Your task to perform on an android device: open app "Roku - Official Remote Control" (install if not already installed) Image 0: 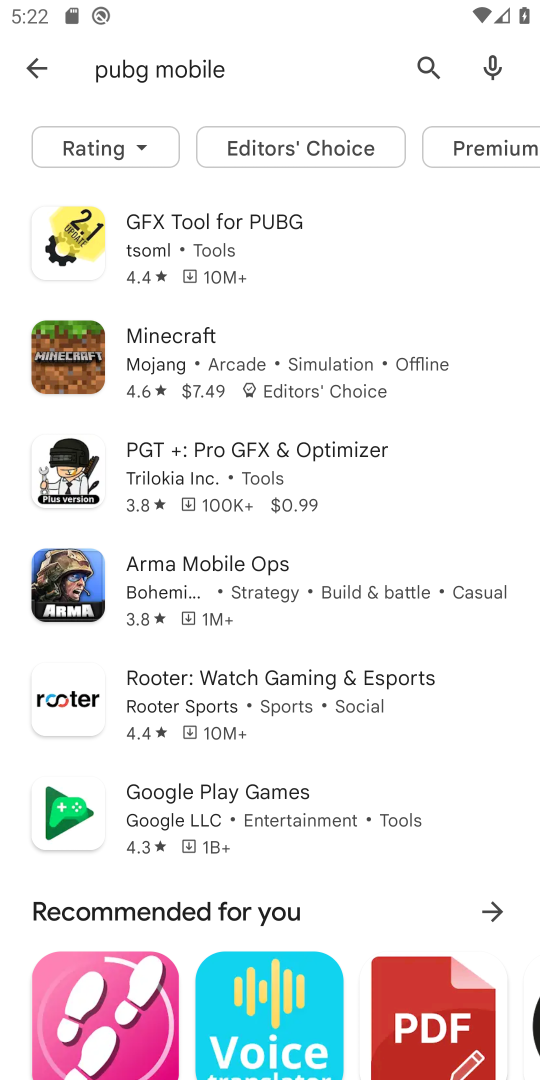
Step 0: press back button
Your task to perform on an android device: open app "Roku - Official Remote Control" (install if not already installed) Image 1: 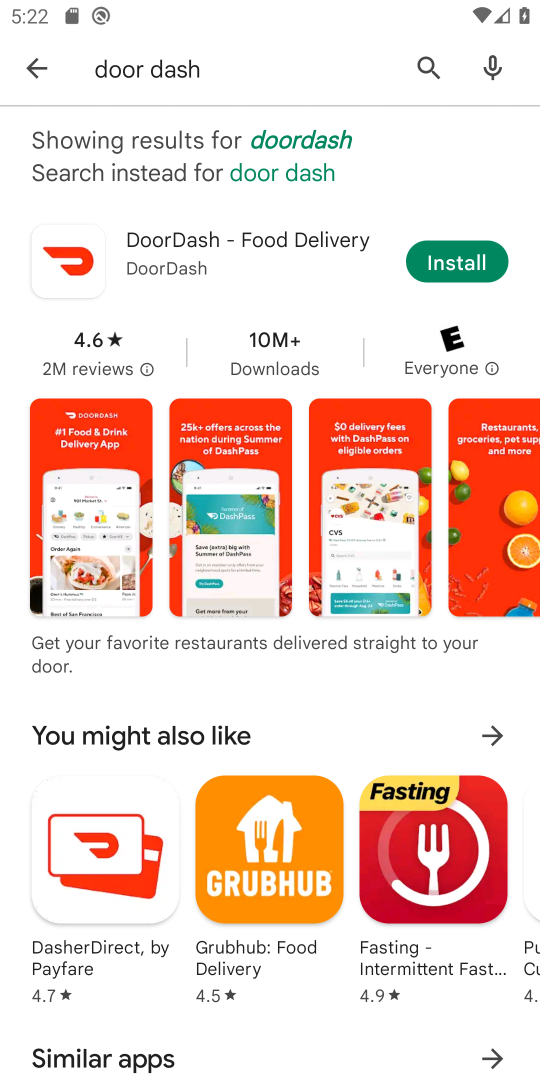
Step 1: click (434, 64)
Your task to perform on an android device: open app "Roku - Official Remote Control" (install if not already installed) Image 2: 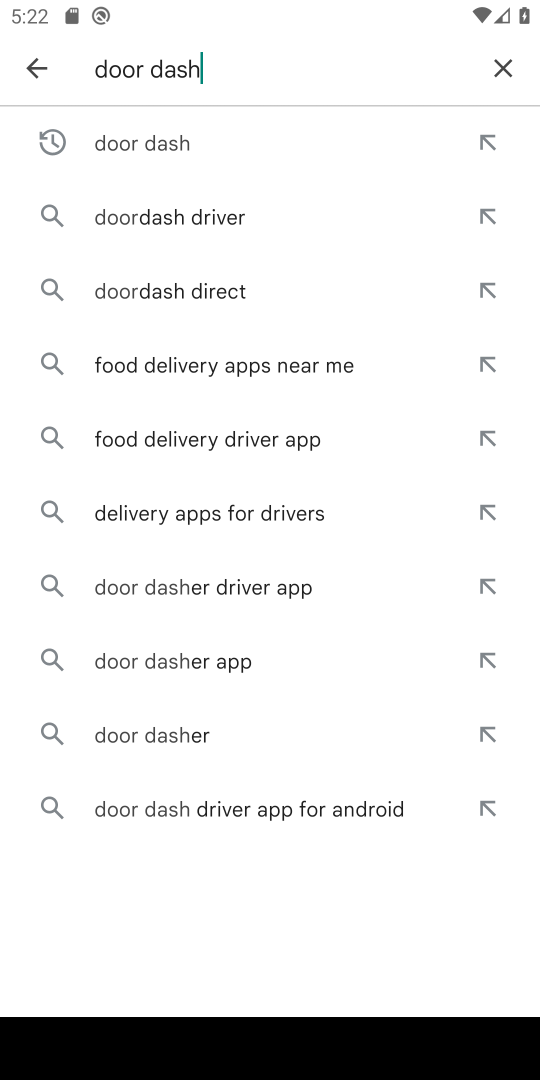
Step 2: click (495, 72)
Your task to perform on an android device: open app "Roku - Official Remote Control" (install if not already installed) Image 3: 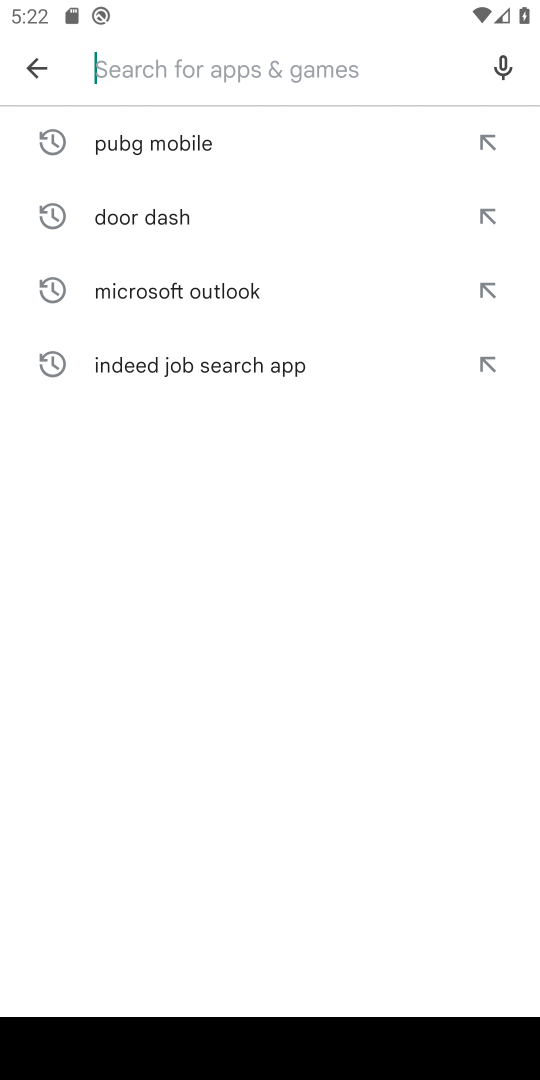
Step 3: click (106, 56)
Your task to perform on an android device: open app "Roku - Official Remote Control" (install if not already installed) Image 4: 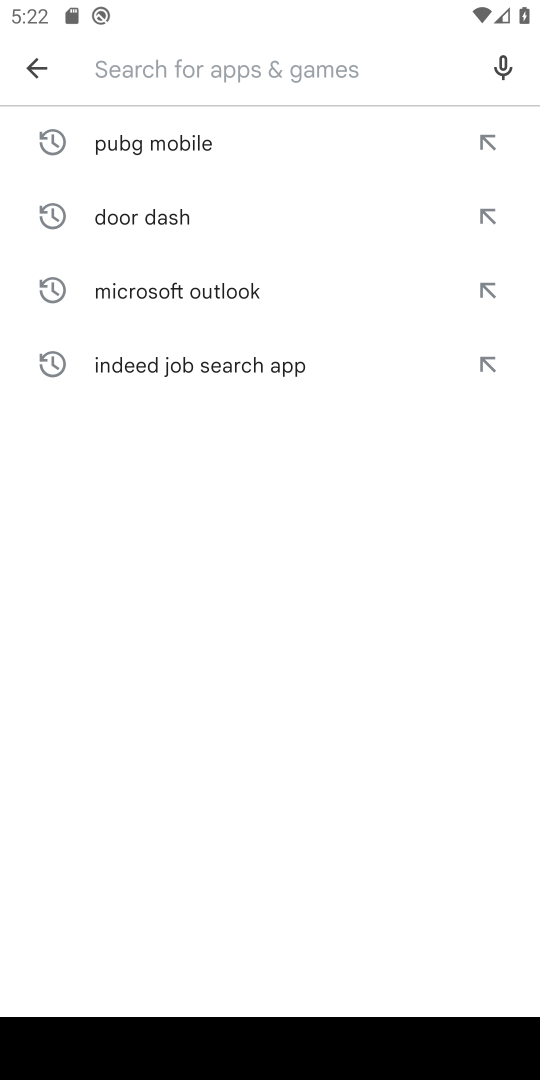
Step 4: type "official remote control"
Your task to perform on an android device: open app "Roku - Official Remote Control" (install if not already installed) Image 5: 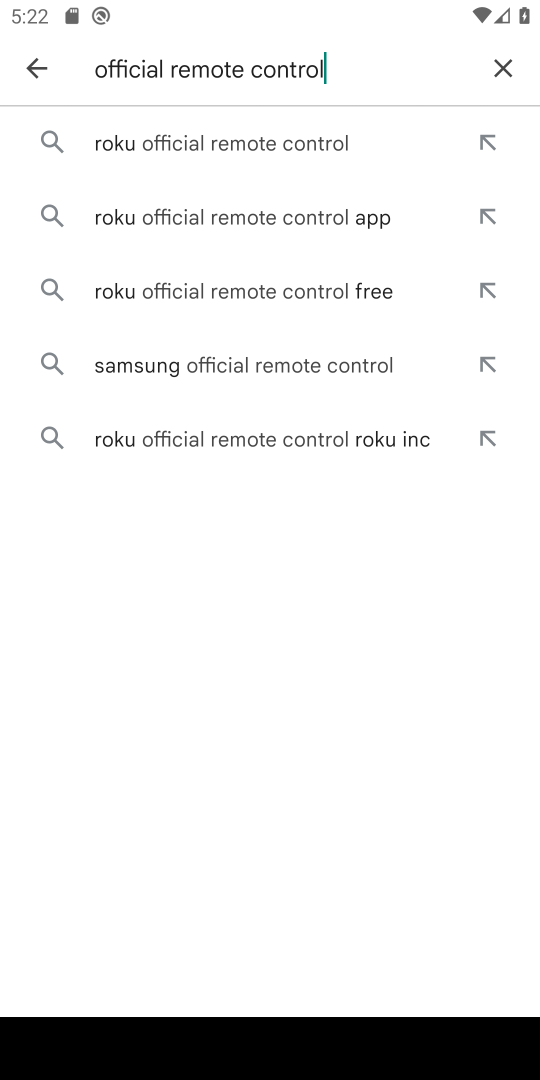
Step 5: click (249, 141)
Your task to perform on an android device: open app "Roku - Official Remote Control" (install if not already installed) Image 6: 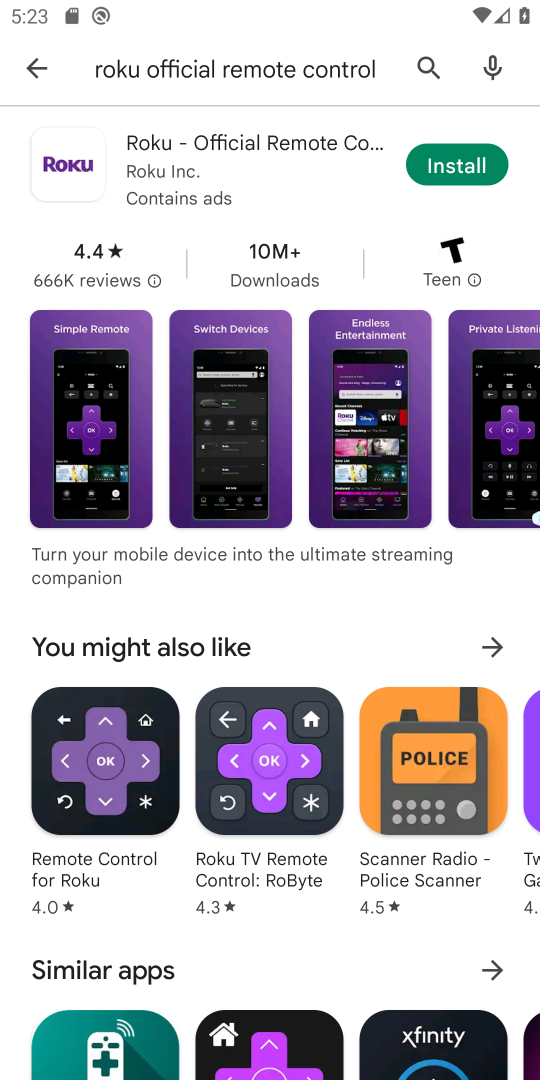
Step 6: click (433, 170)
Your task to perform on an android device: open app "Roku - Official Remote Control" (install if not already installed) Image 7: 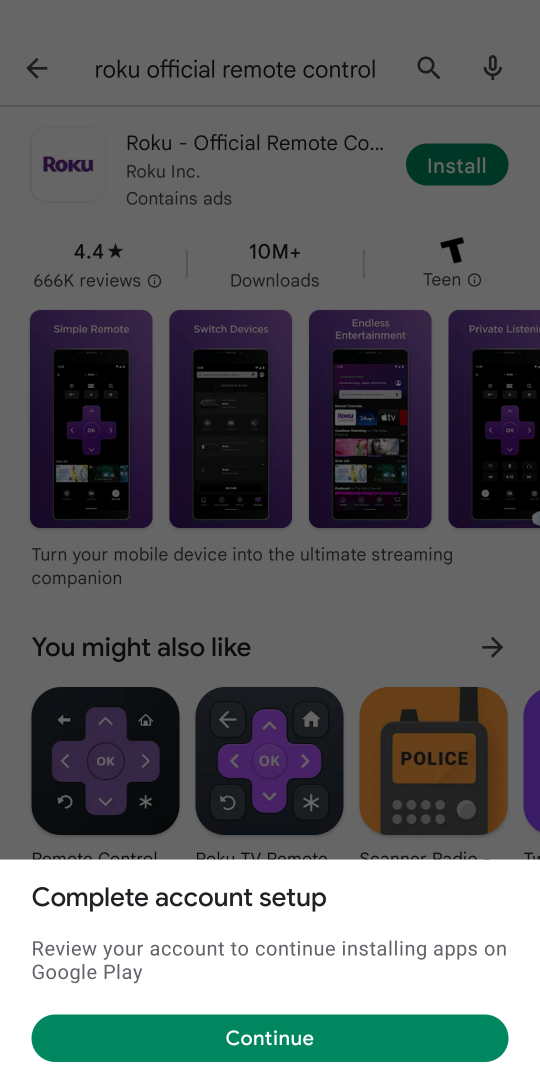
Step 7: click (228, 1044)
Your task to perform on an android device: open app "Roku - Official Remote Control" (install if not already installed) Image 8: 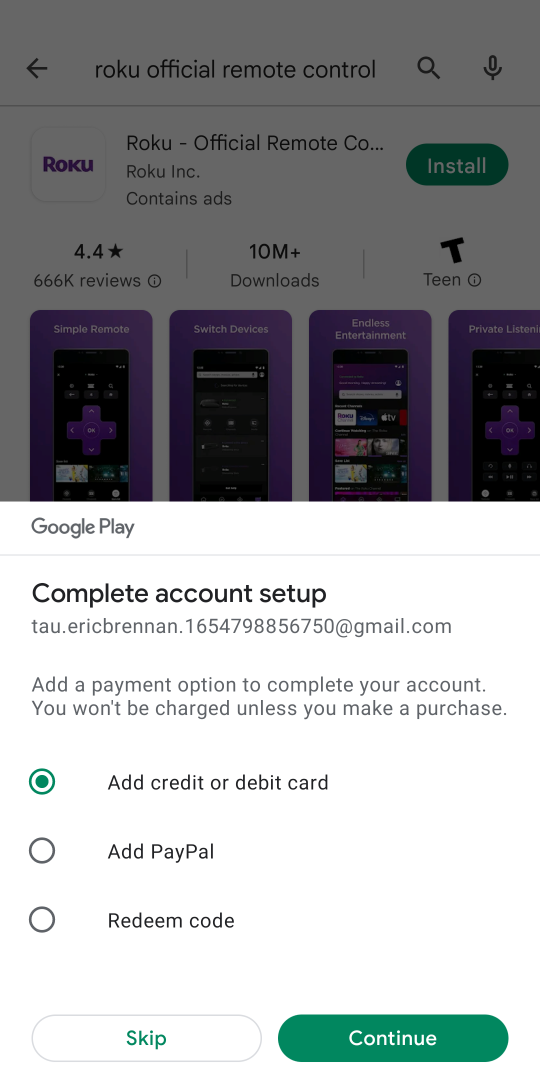
Step 8: click (167, 1046)
Your task to perform on an android device: open app "Roku - Official Remote Control" (install if not already installed) Image 9: 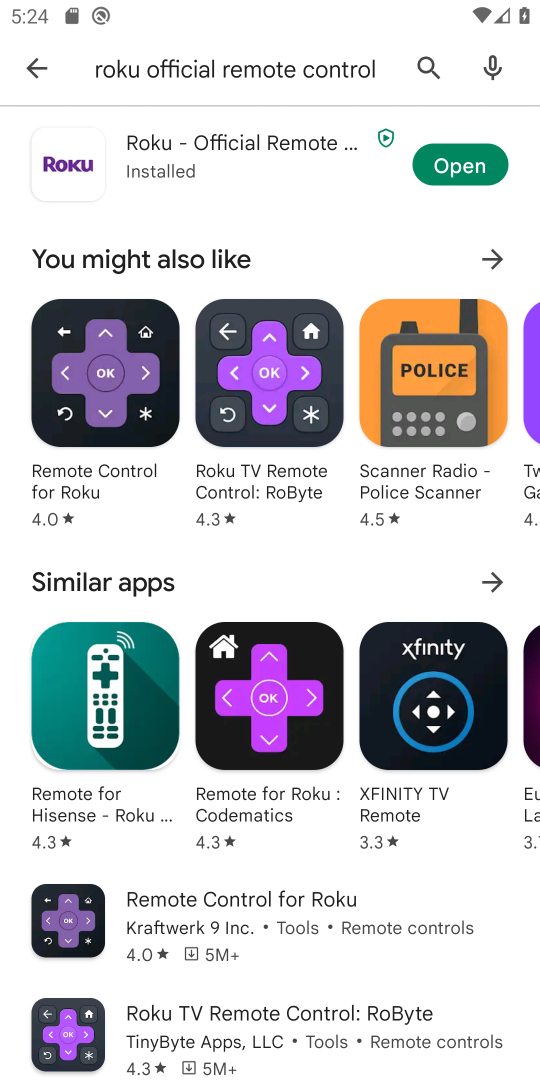
Step 9: click (456, 166)
Your task to perform on an android device: open app "Roku - Official Remote Control" (install if not already installed) Image 10: 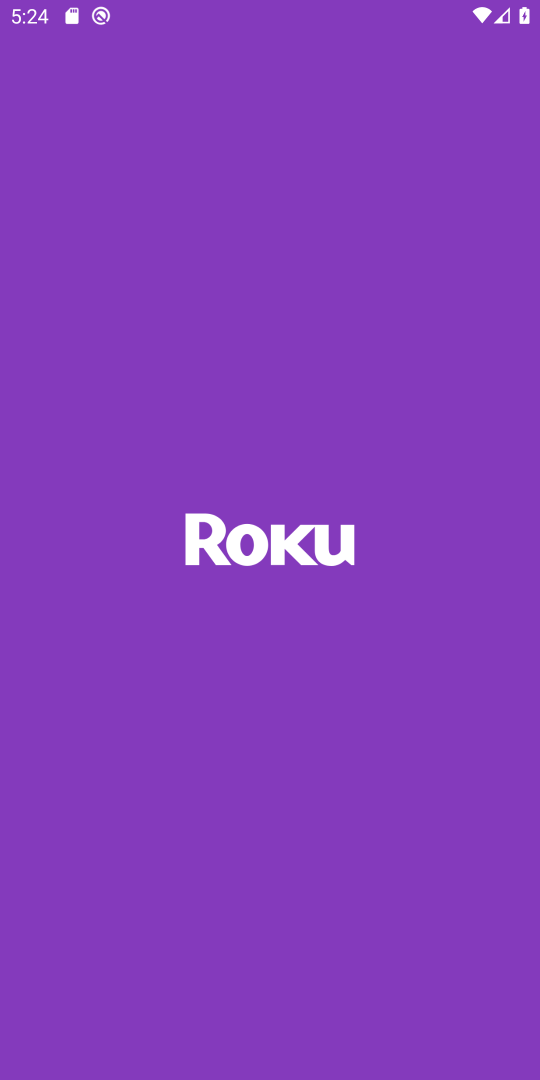
Step 10: task complete